Your task to perform on an android device: Clear the cart on bestbuy. Search for usb-a to usb-b on bestbuy, select the first entry, and add it to the cart. Image 0: 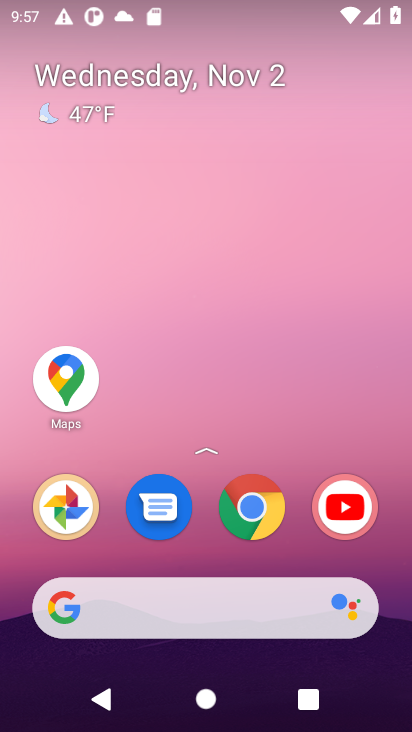
Step 0: click (254, 590)
Your task to perform on an android device: Clear the cart on bestbuy. Search for usb-a to usb-b on bestbuy, select the first entry, and add it to the cart. Image 1: 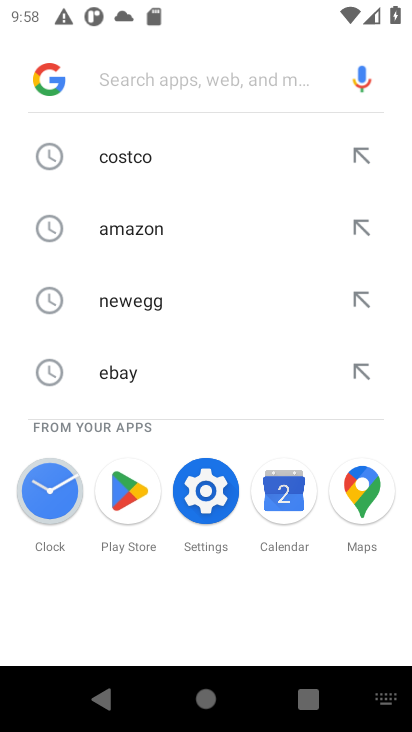
Step 1: type "bestbuy"
Your task to perform on an android device: Clear the cart on bestbuy. Search for usb-a to usb-b on bestbuy, select the first entry, and add it to the cart. Image 2: 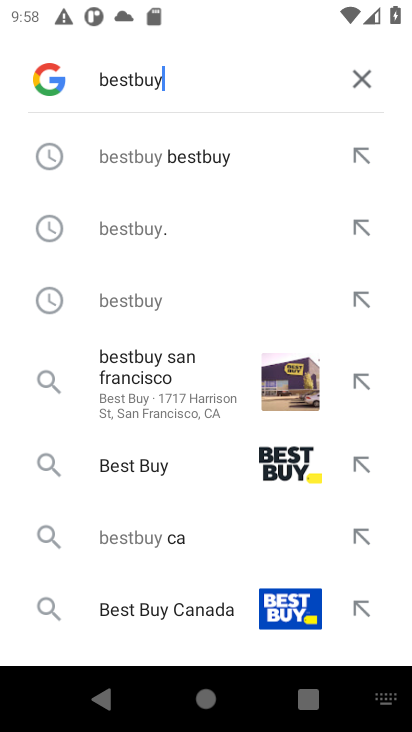
Step 2: click (217, 481)
Your task to perform on an android device: Clear the cart on bestbuy. Search for usb-a to usb-b on bestbuy, select the first entry, and add it to the cart. Image 3: 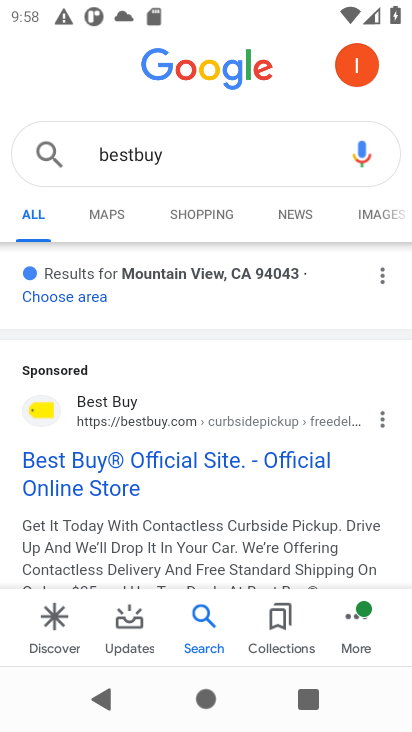
Step 3: click (181, 477)
Your task to perform on an android device: Clear the cart on bestbuy. Search for usb-a to usb-b on bestbuy, select the first entry, and add it to the cart. Image 4: 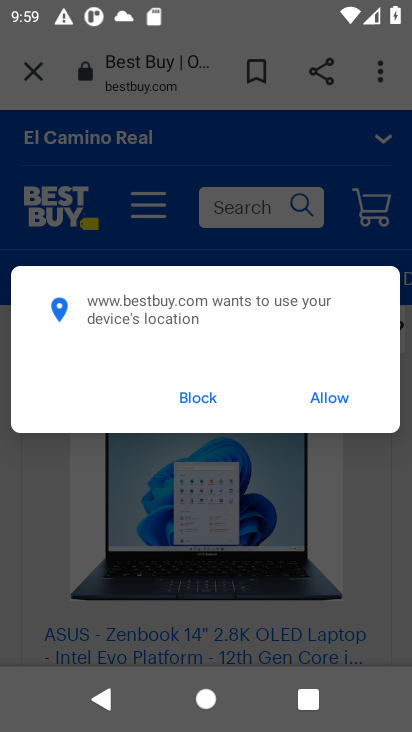
Step 4: task complete